Your task to perform on an android device: Empty the shopping cart on amazon. Add razer blade to the cart on amazon Image 0: 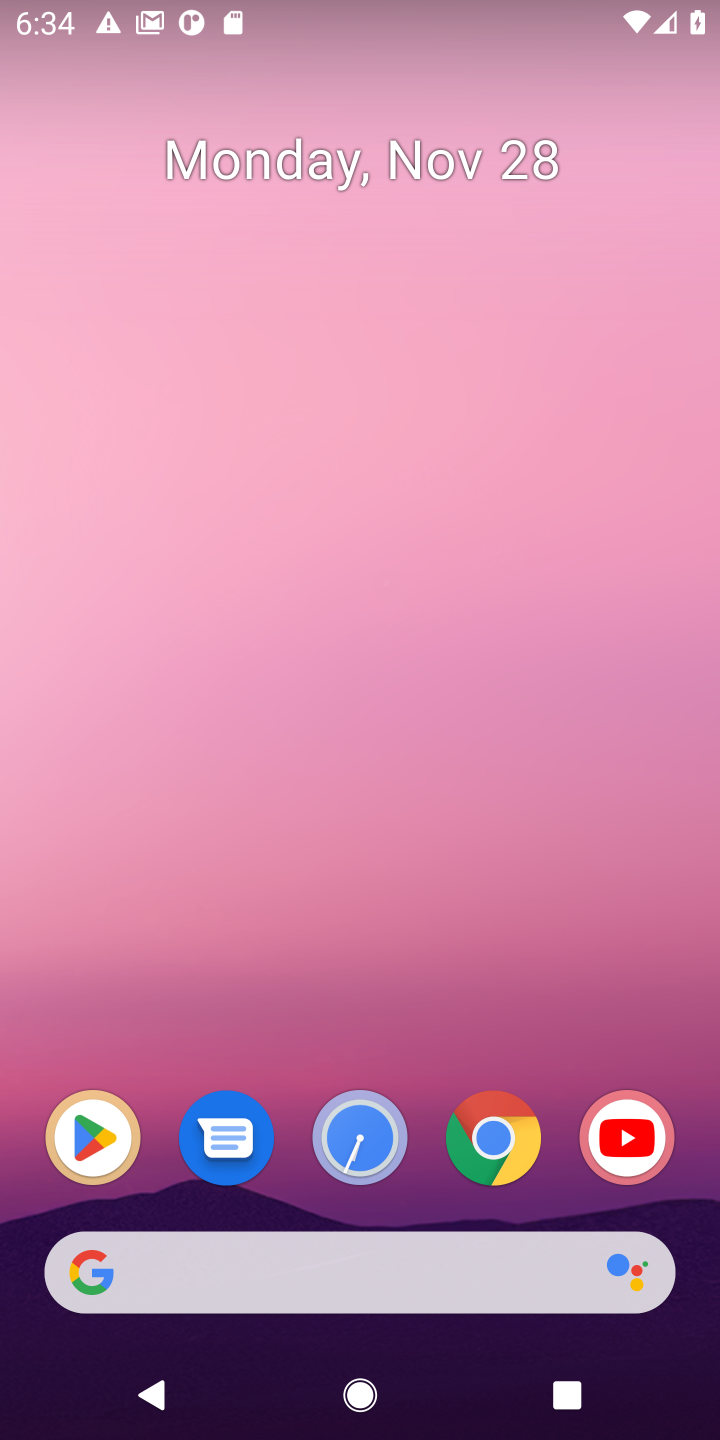
Step 0: click (491, 1142)
Your task to perform on an android device: Empty the shopping cart on amazon. Add razer blade to the cart on amazon Image 1: 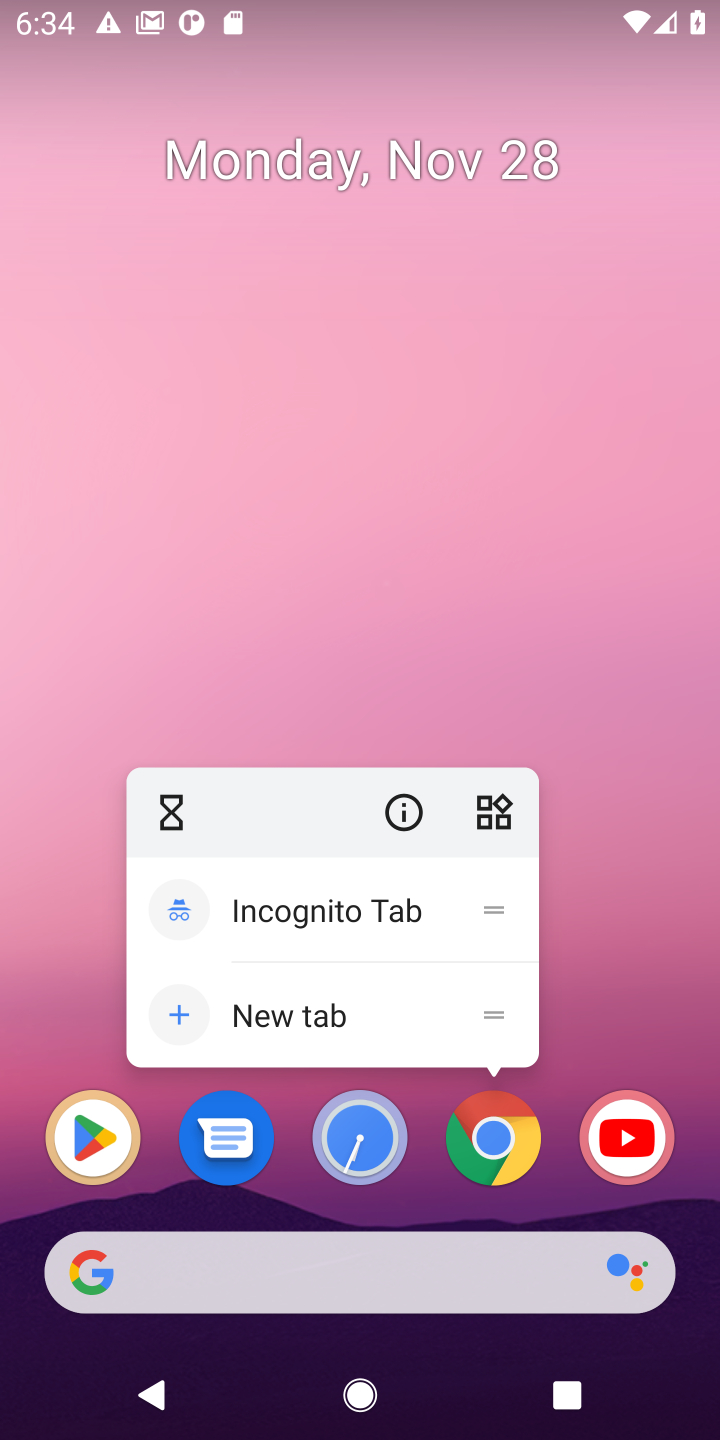
Step 1: click (491, 1142)
Your task to perform on an android device: Empty the shopping cart on amazon. Add razer blade to the cart on amazon Image 2: 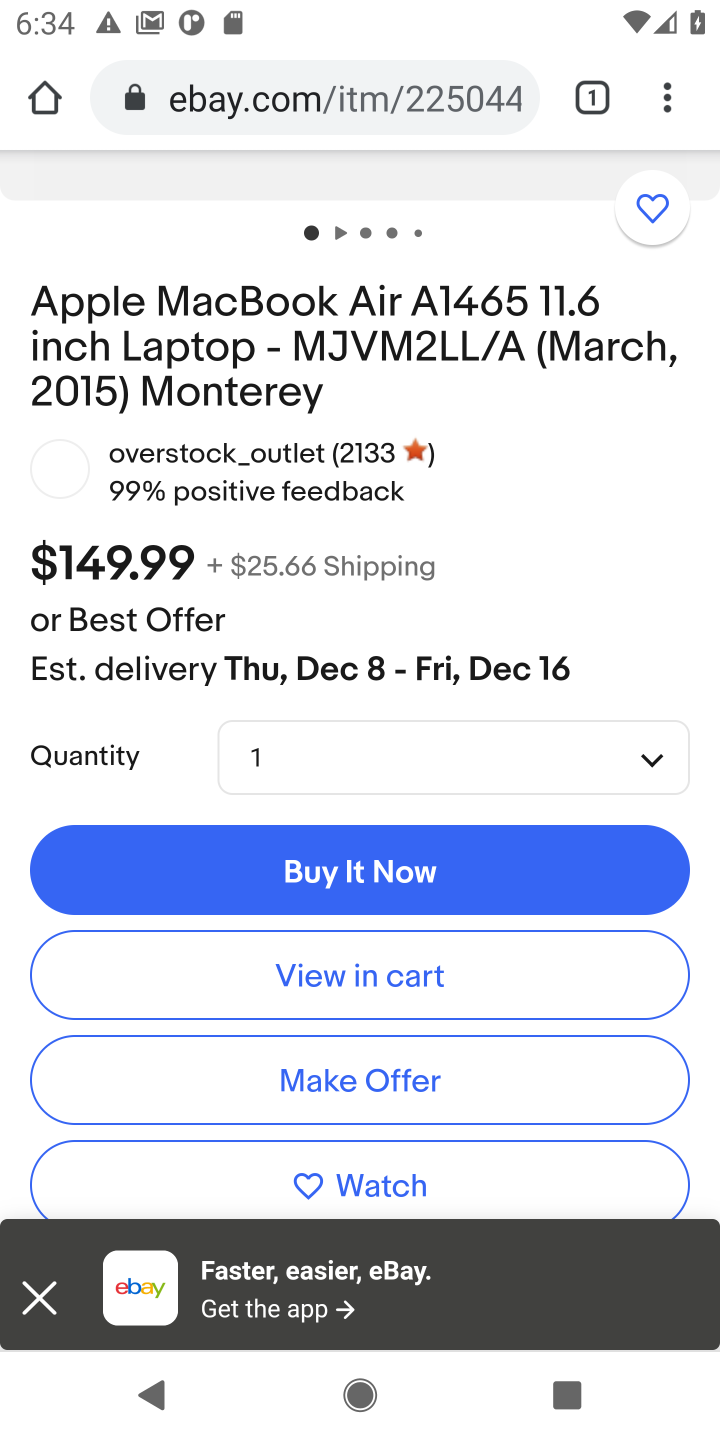
Step 2: click (250, 98)
Your task to perform on an android device: Empty the shopping cart on amazon. Add razer blade to the cart on amazon Image 3: 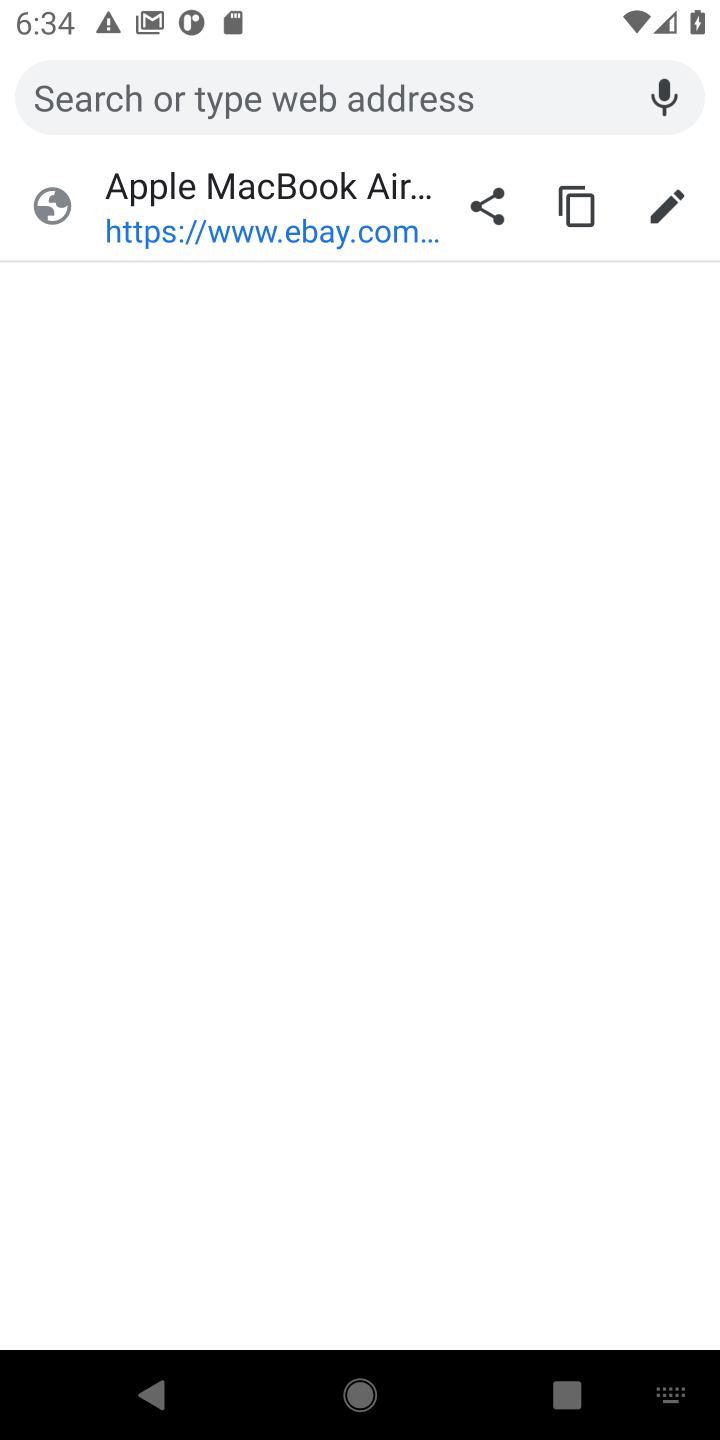
Step 3: type "amazon.com"
Your task to perform on an android device: Empty the shopping cart on amazon. Add razer blade to the cart on amazon Image 4: 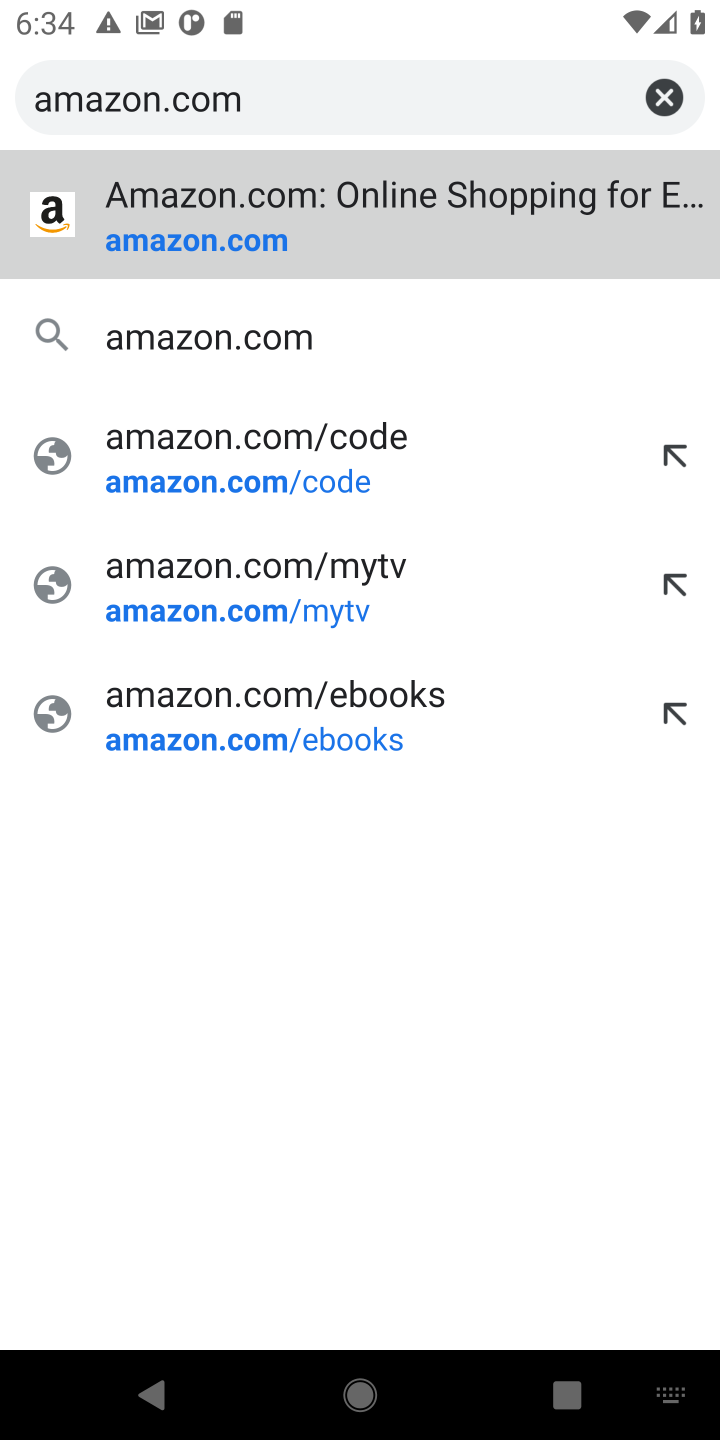
Step 4: click (193, 222)
Your task to perform on an android device: Empty the shopping cart on amazon. Add razer blade to the cart on amazon Image 5: 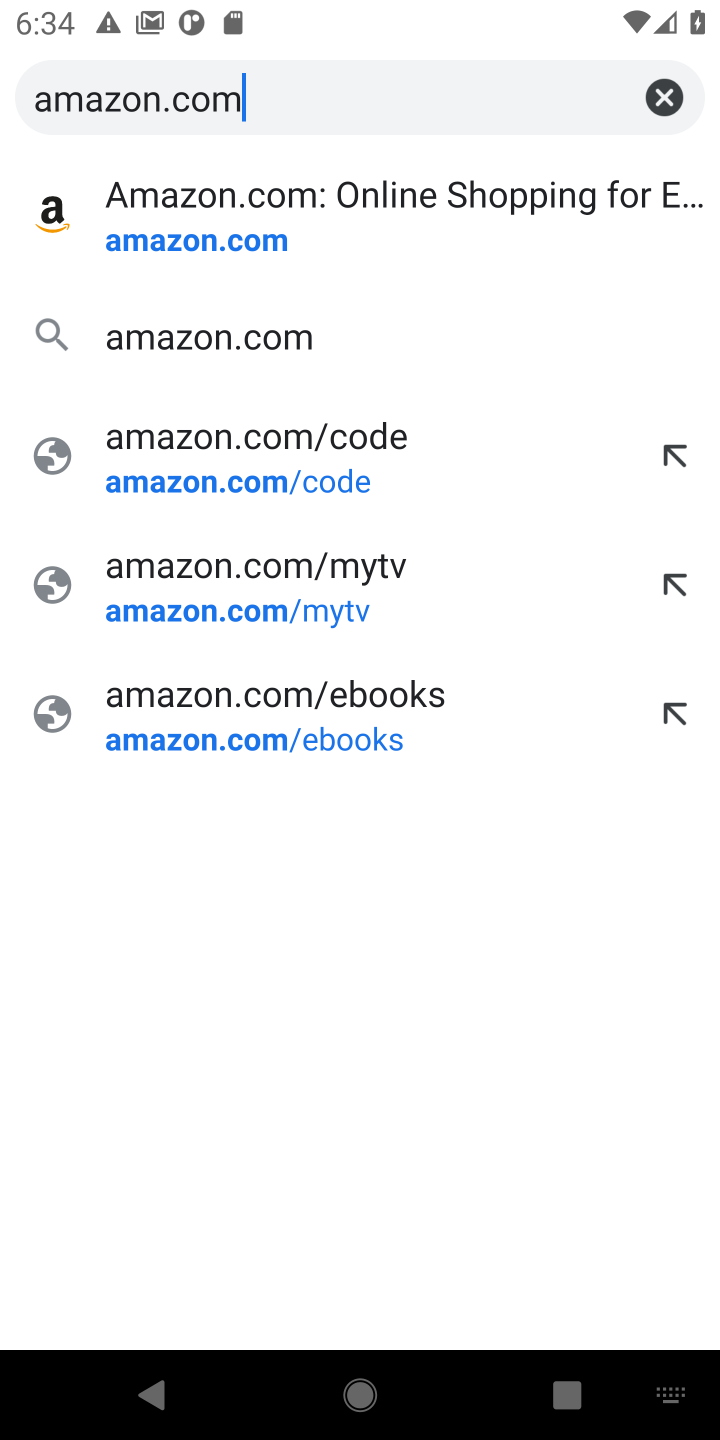
Step 5: click (158, 234)
Your task to perform on an android device: Empty the shopping cart on amazon. Add razer blade to the cart on amazon Image 6: 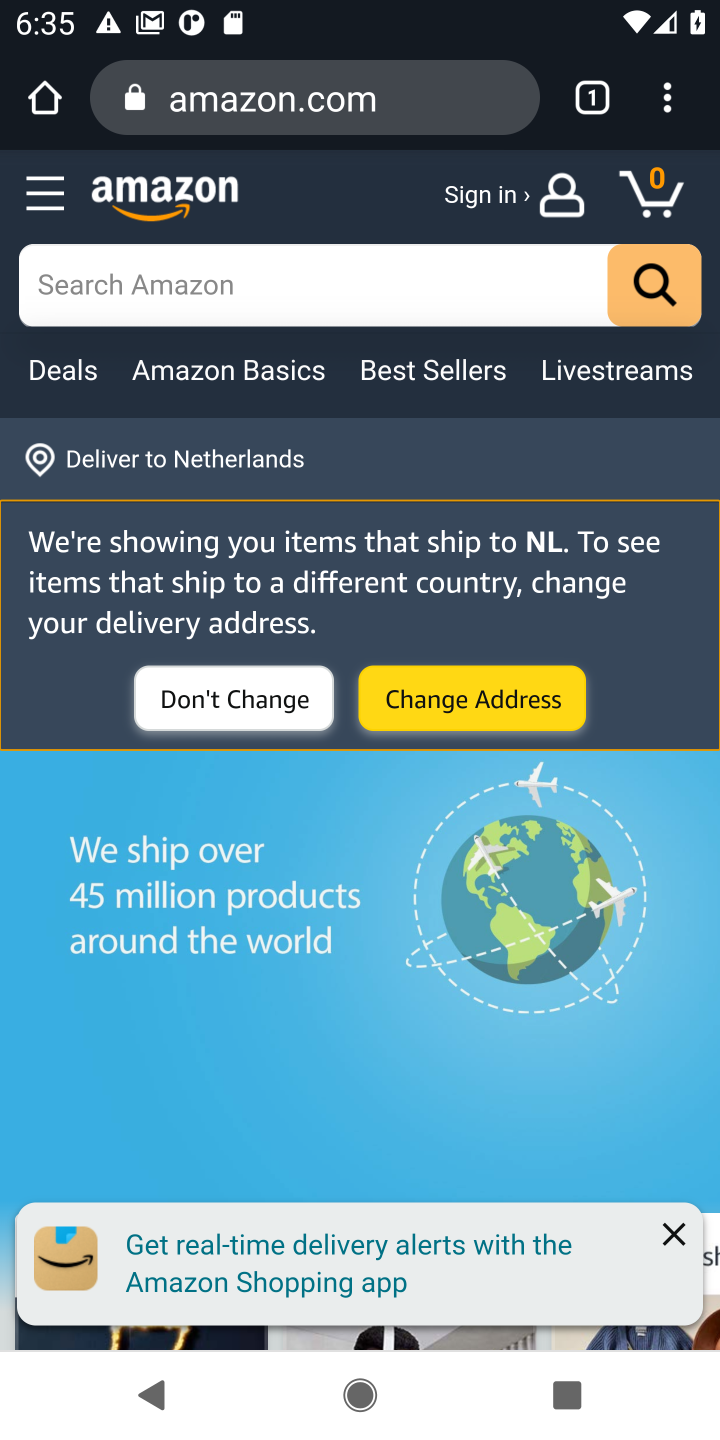
Step 6: click (653, 191)
Your task to perform on an android device: Empty the shopping cart on amazon. Add razer blade to the cart on amazon Image 7: 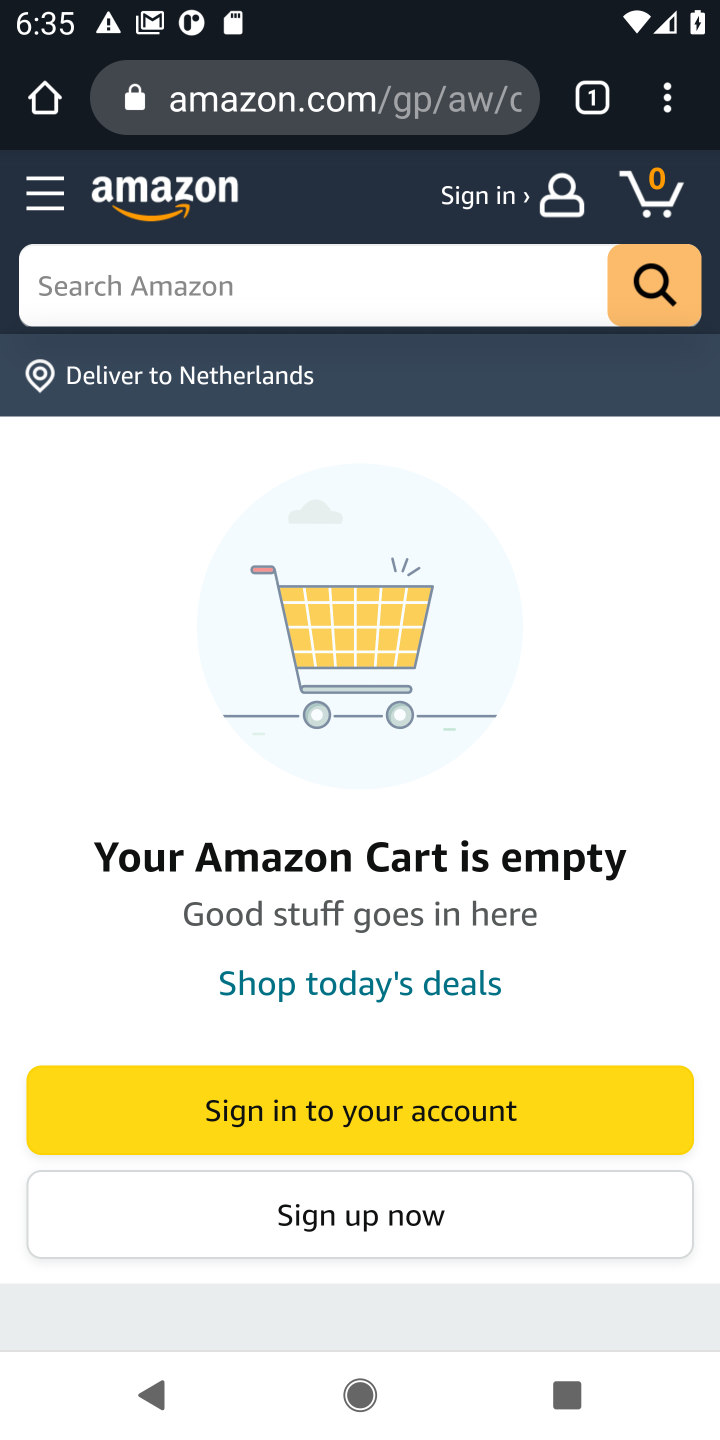
Step 7: click (126, 273)
Your task to perform on an android device: Empty the shopping cart on amazon. Add razer blade to the cart on amazon Image 8: 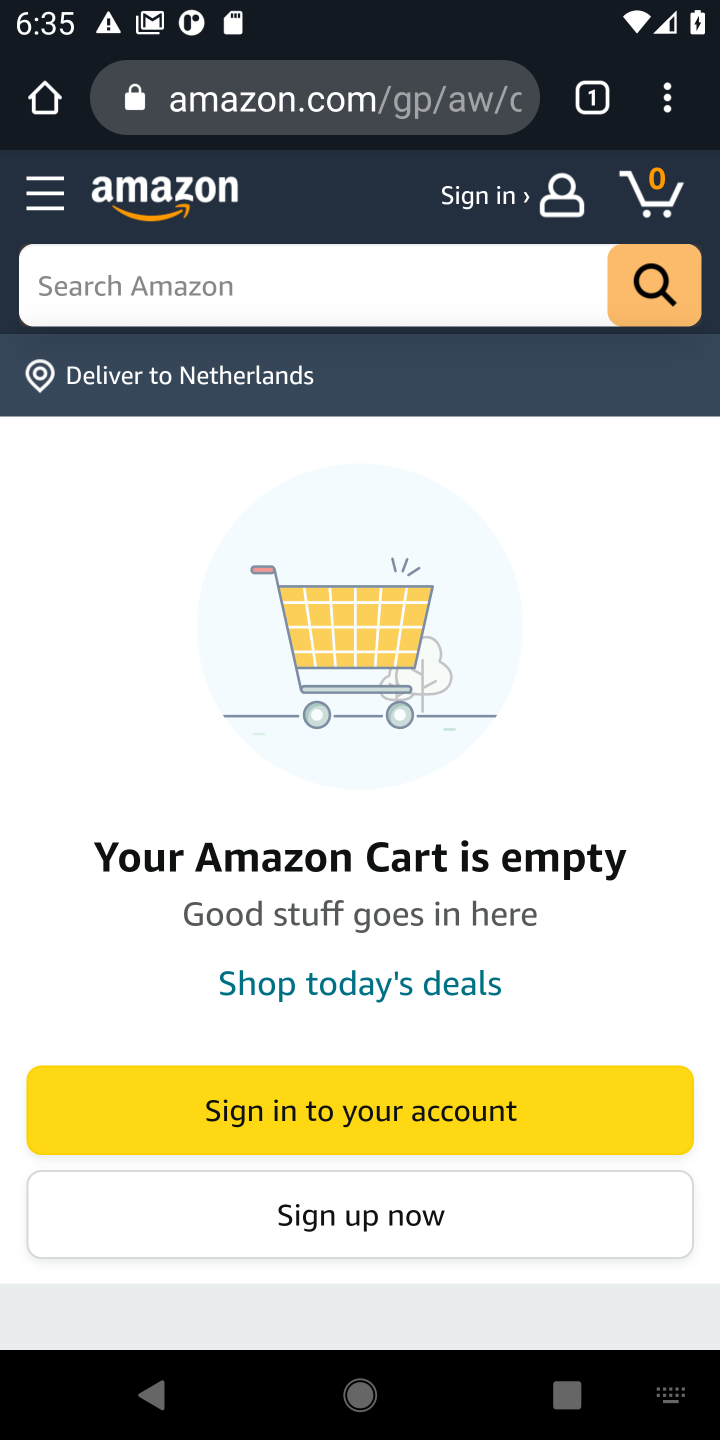
Step 8: type "razer blade"
Your task to perform on an android device: Empty the shopping cart on amazon. Add razer blade to the cart on amazon Image 9: 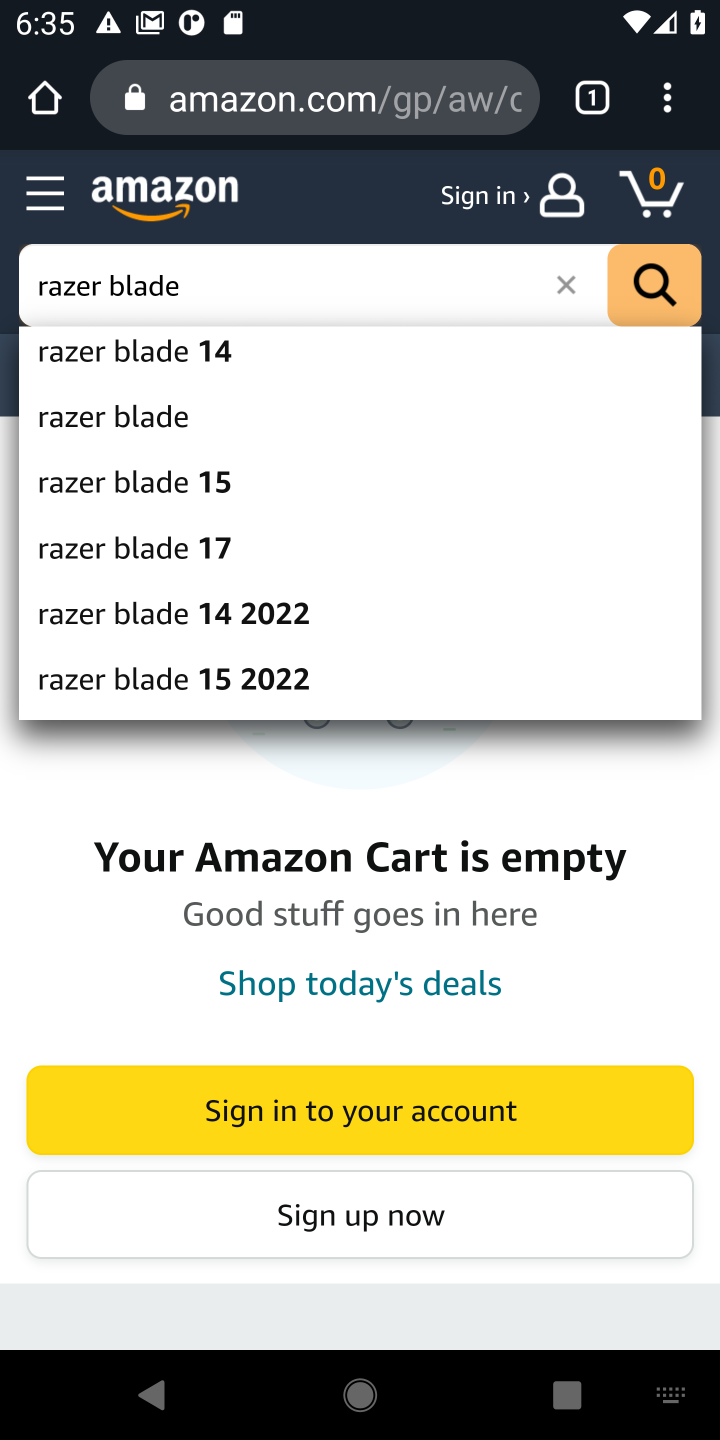
Step 9: click (107, 419)
Your task to perform on an android device: Empty the shopping cart on amazon. Add razer blade to the cart on amazon Image 10: 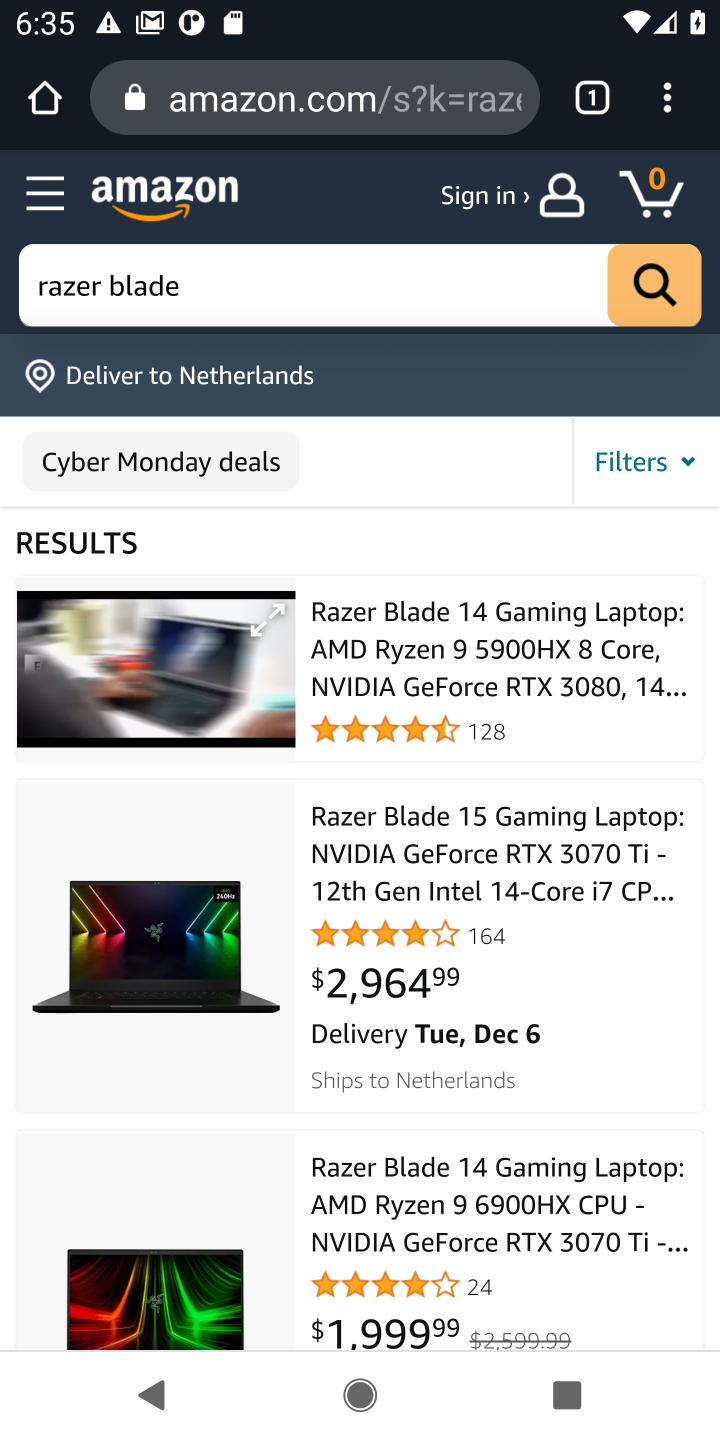
Step 10: click (357, 868)
Your task to perform on an android device: Empty the shopping cart on amazon. Add razer blade to the cart on amazon Image 11: 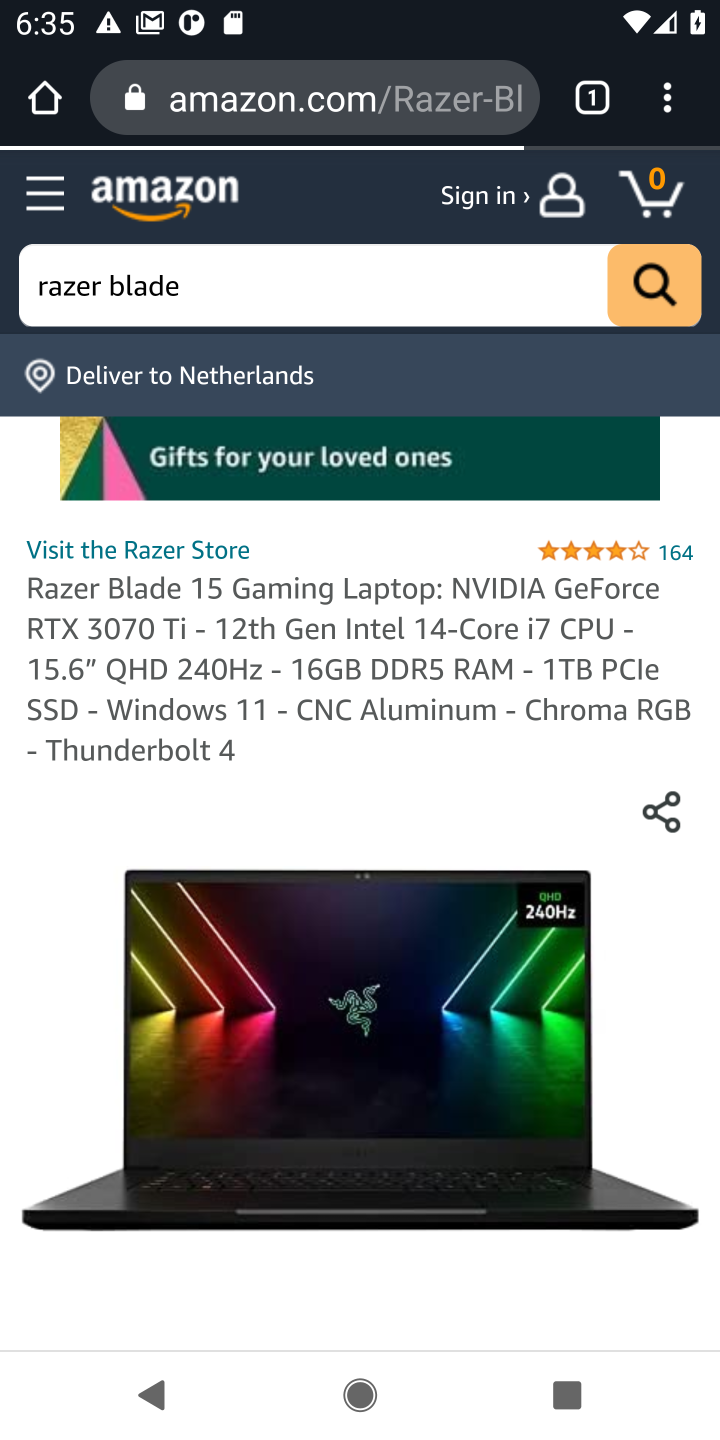
Step 11: drag from (573, 1028) to (578, 390)
Your task to perform on an android device: Empty the shopping cart on amazon. Add razer blade to the cart on amazon Image 12: 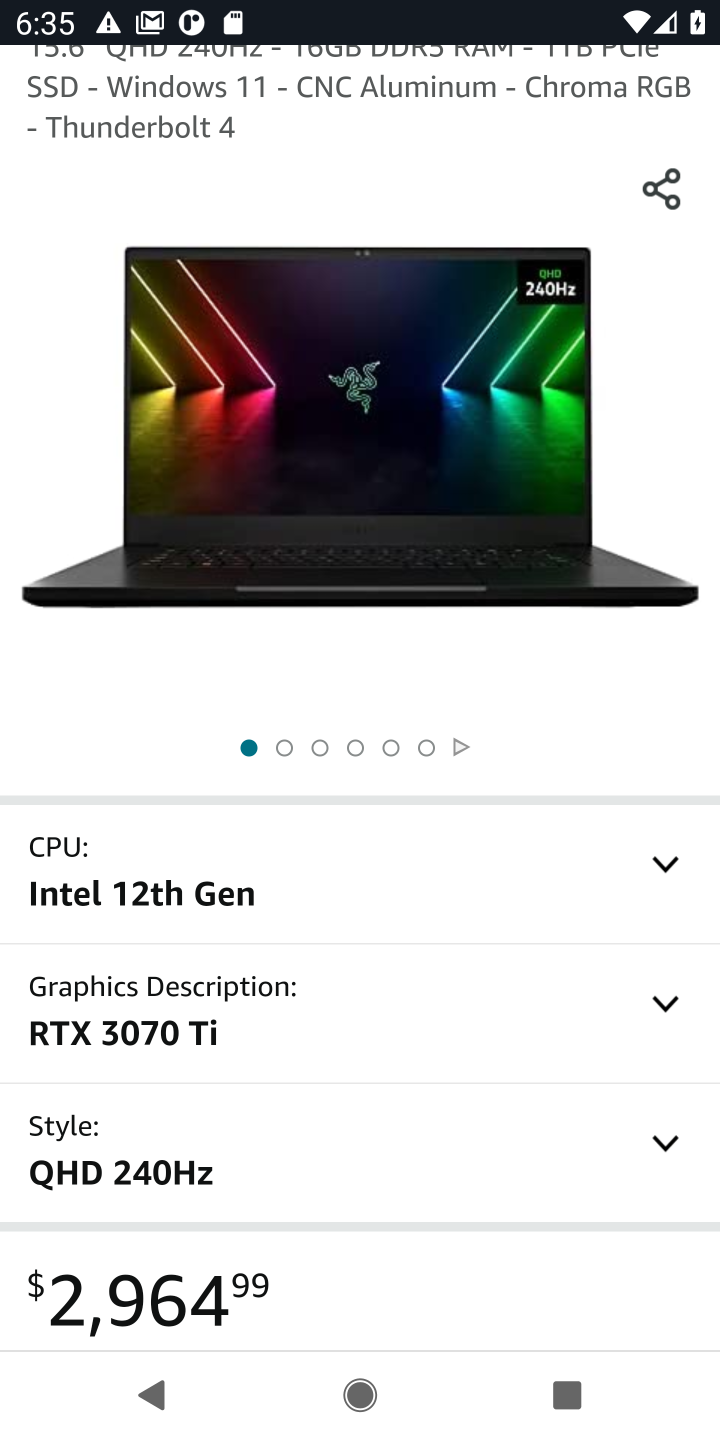
Step 12: drag from (461, 819) to (495, 495)
Your task to perform on an android device: Empty the shopping cart on amazon. Add razer blade to the cart on amazon Image 13: 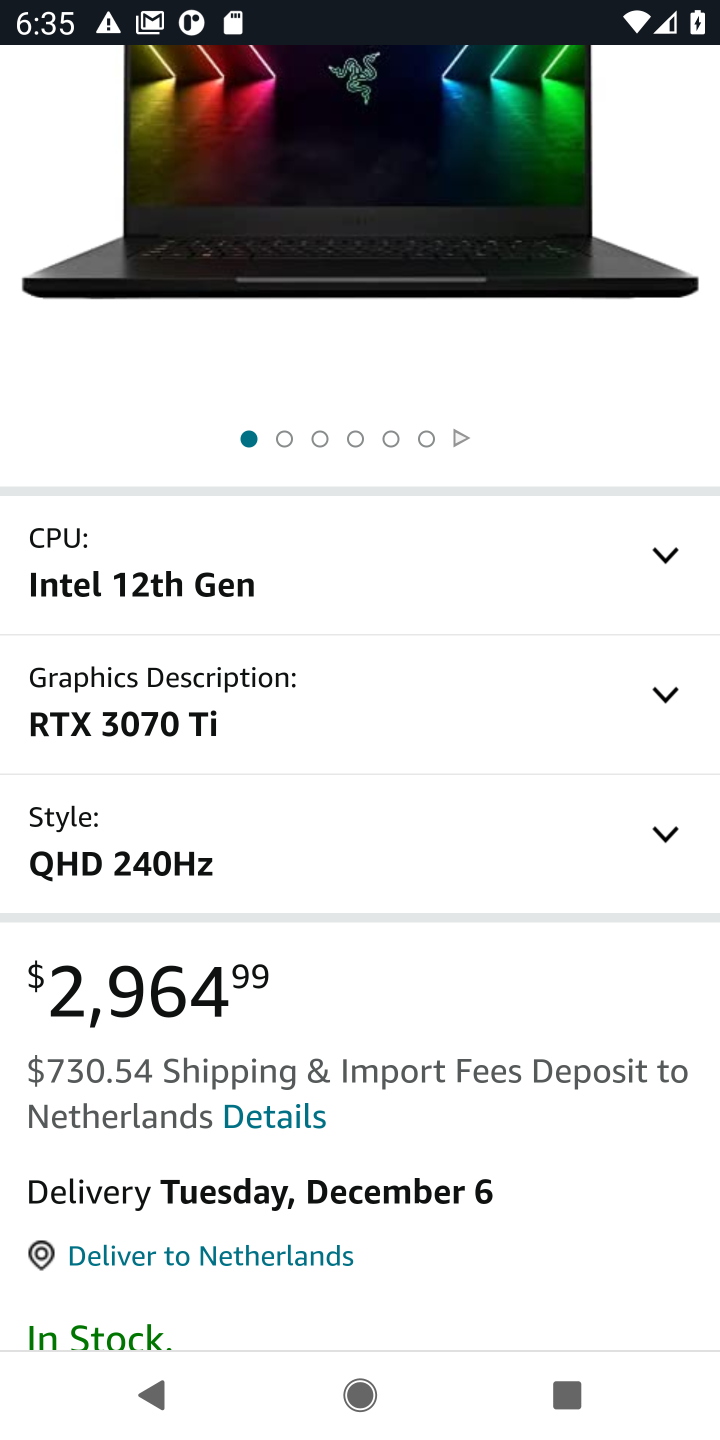
Step 13: drag from (392, 1010) to (401, 636)
Your task to perform on an android device: Empty the shopping cart on amazon. Add razer blade to the cart on amazon Image 14: 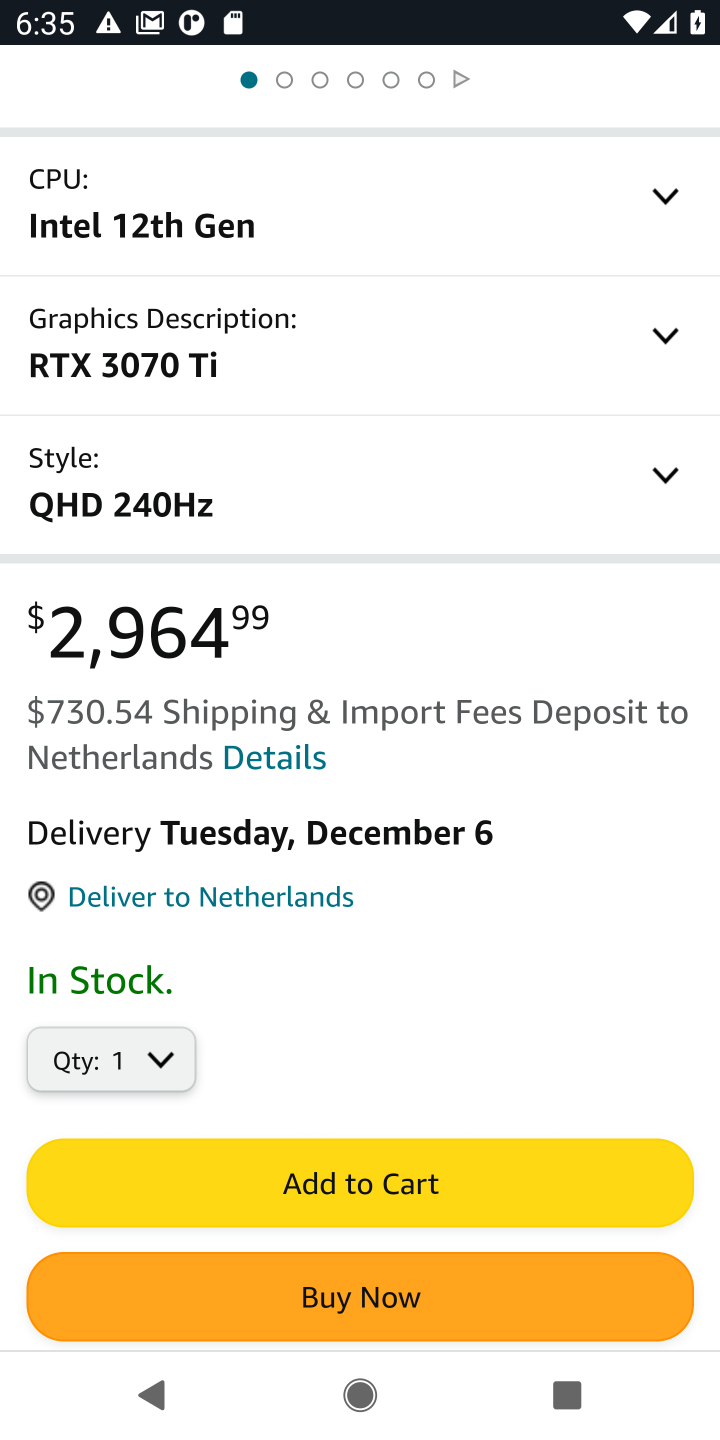
Step 14: click (276, 1181)
Your task to perform on an android device: Empty the shopping cart on amazon. Add razer blade to the cart on amazon Image 15: 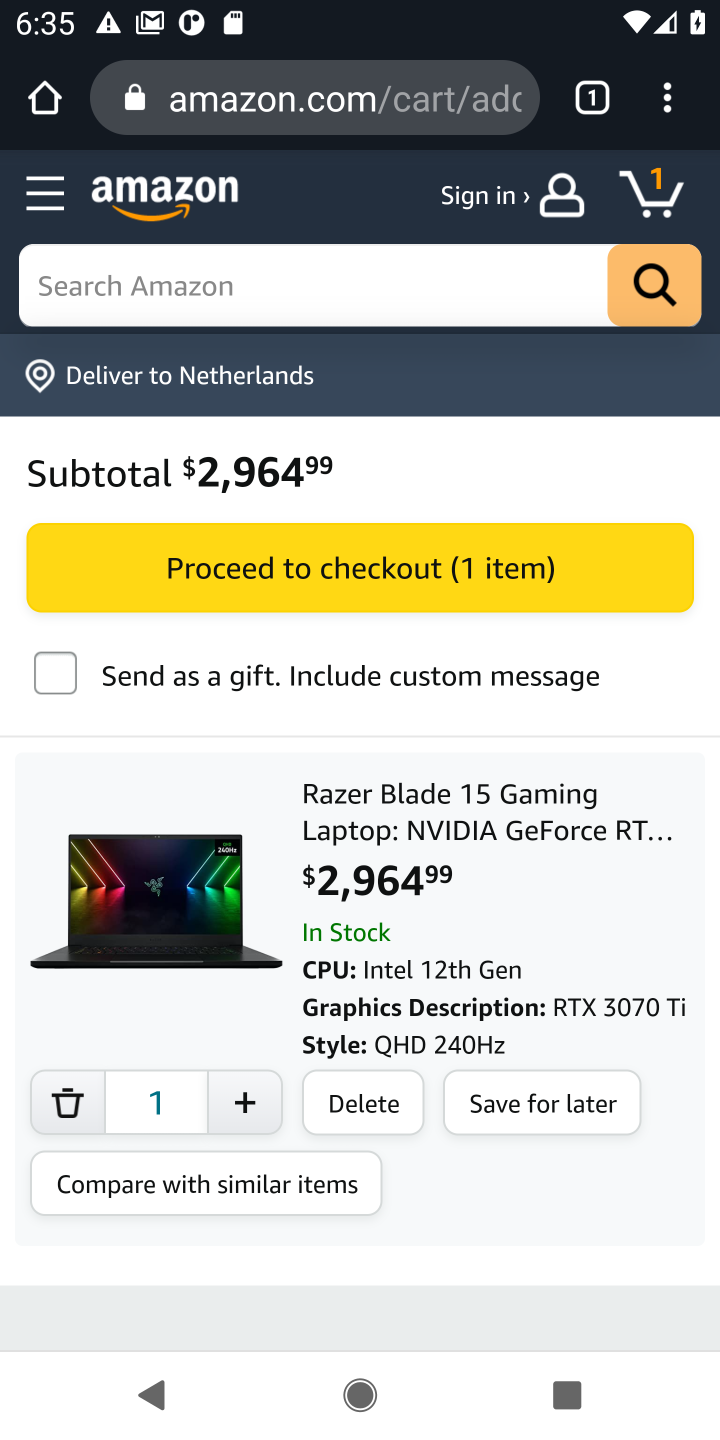
Step 15: task complete